Your task to perform on an android device: Find coffee shops on Maps Image 0: 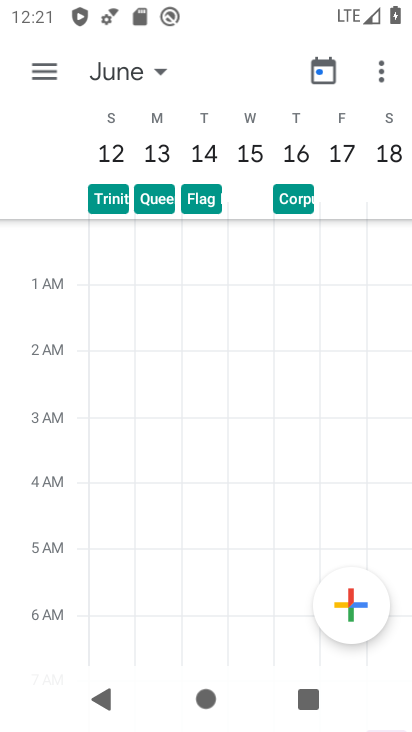
Step 0: press home button
Your task to perform on an android device: Find coffee shops on Maps Image 1: 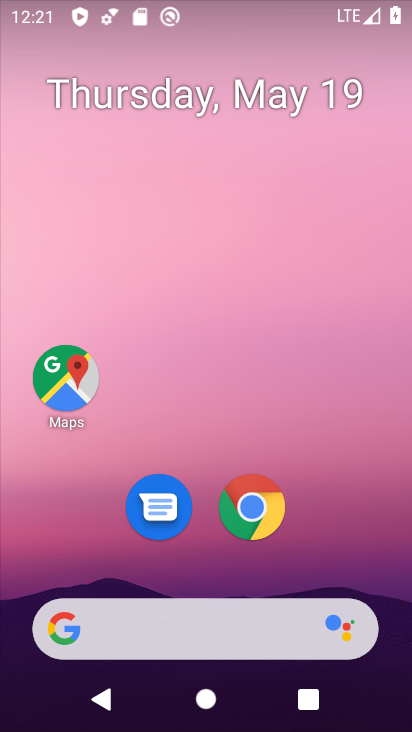
Step 1: click (68, 408)
Your task to perform on an android device: Find coffee shops on Maps Image 2: 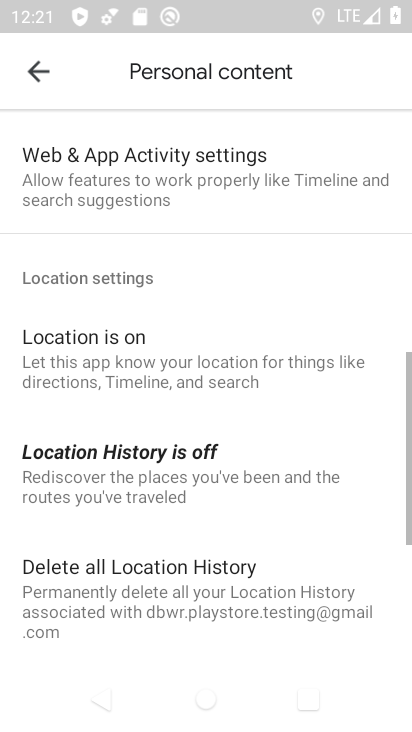
Step 2: click (40, 69)
Your task to perform on an android device: Find coffee shops on Maps Image 3: 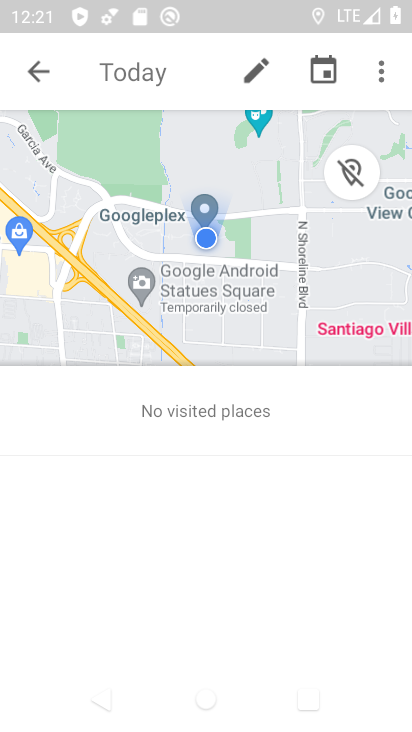
Step 3: click (40, 63)
Your task to perform on an android device: Find coffee shops on Maps Image 4: 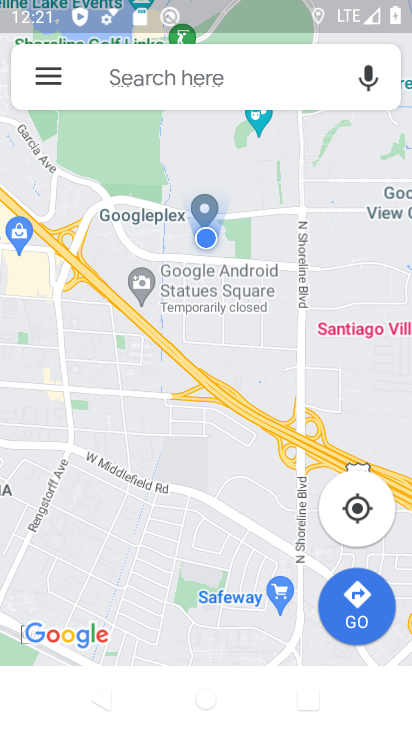
Step 4: click (169, 78)
Your task to perform on an android device: Find coffee shops on Maps Image 5: 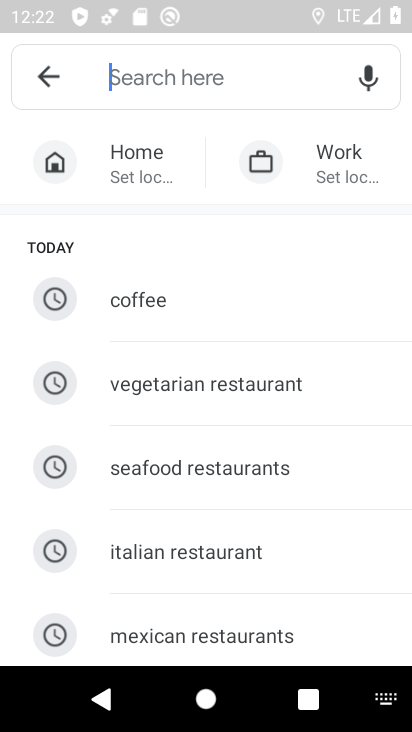
Step 5: type "coffee shops"
Your task to perform on an android device: Find coffee shops on Maps Image 6: 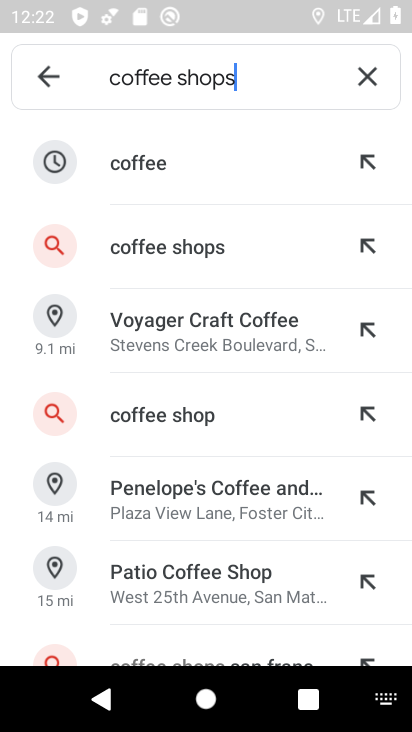
Step 6: click (181, 241)
Your task to perform on an android device: Find coffee shops on Maps Image 7: 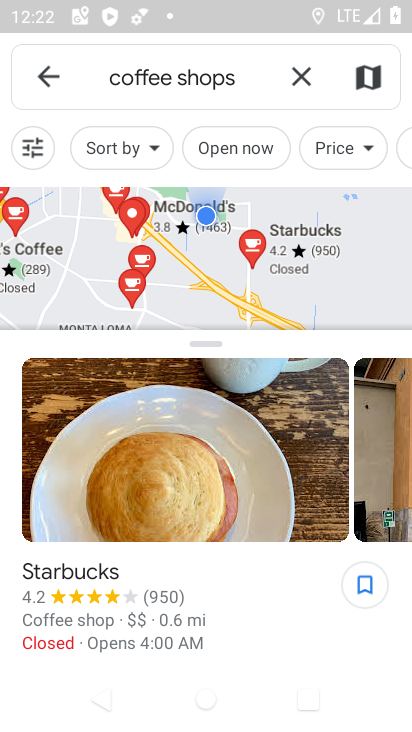
Step 7: task complete